Your task to perform on an android device: stop showing notifications on the lock screen Image 0: 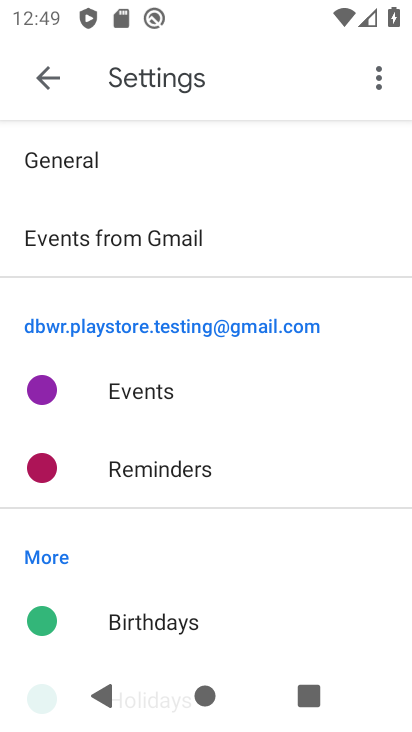
Step 0: press home button
Your task to perform on an android device: stop showing notifications on the lock screen Image 1: 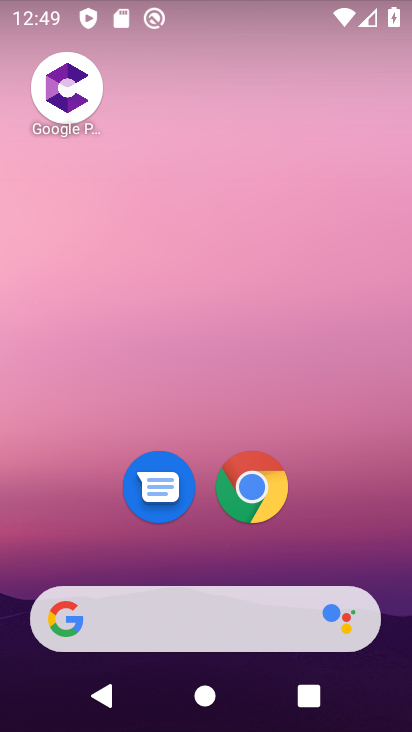
Step 1: drag from (336, 528) to (351, 150)
Your task to perform on an android device: stop showing notifications on the lock screen Image 2: 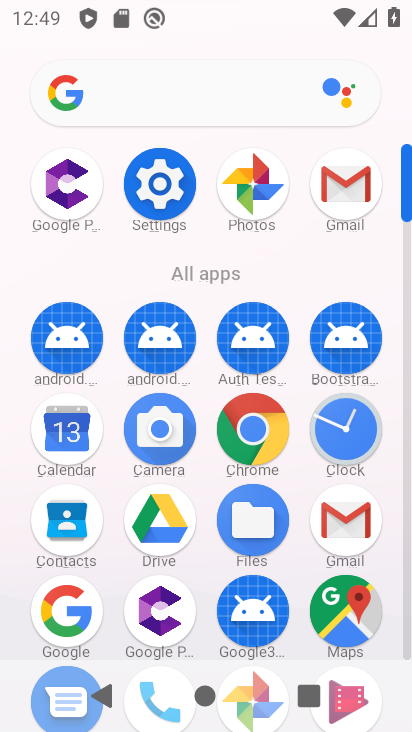
Step 2: click (180, 204)
Your task to perform on an android device: stop showing notifications on the lock screen Image 3: 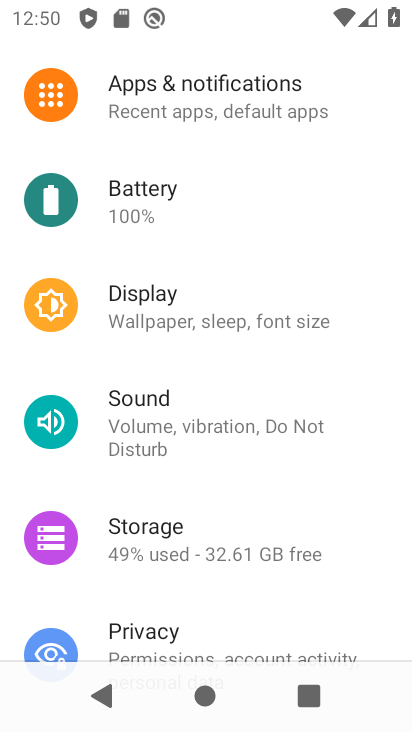
Step 3: click (238, 106)
Your task to perform on an android device: stop showing notifications on the lock screen Image 4: 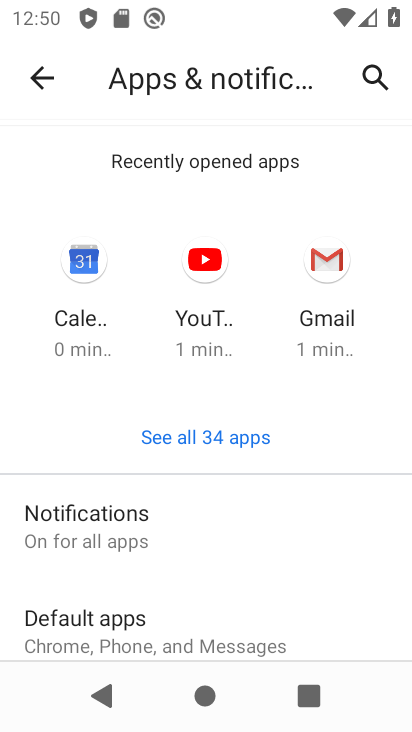
Step 4: click (190, 529)
Your task to perform on an android device: stop showing notifications on the lock screen Image 5: 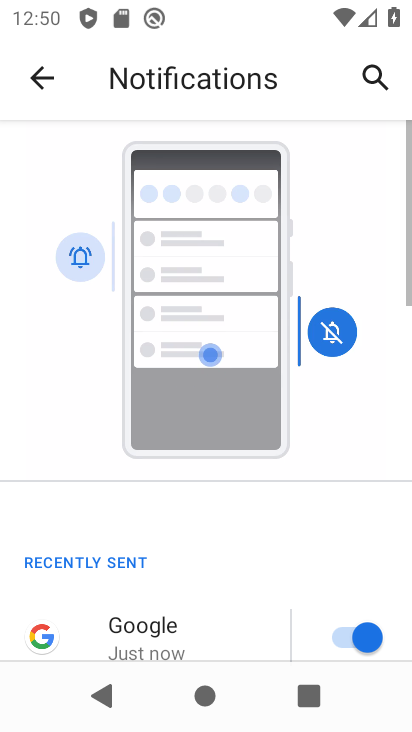
Step 5: drag from (219, 598) to (236, 173)
Your task to perform on an android device: stop showing notifications on the lock screen Image 6: 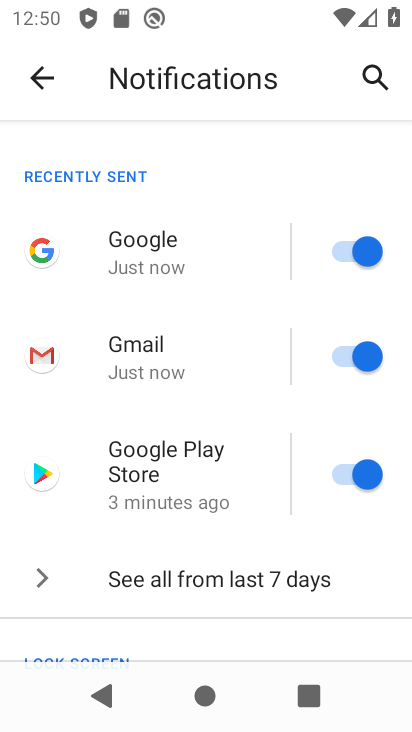
Step 6: drag from (285, 471) to (284, 196)
Your task to perform on an android device: stop showing notifications on the lock screen Image 7: 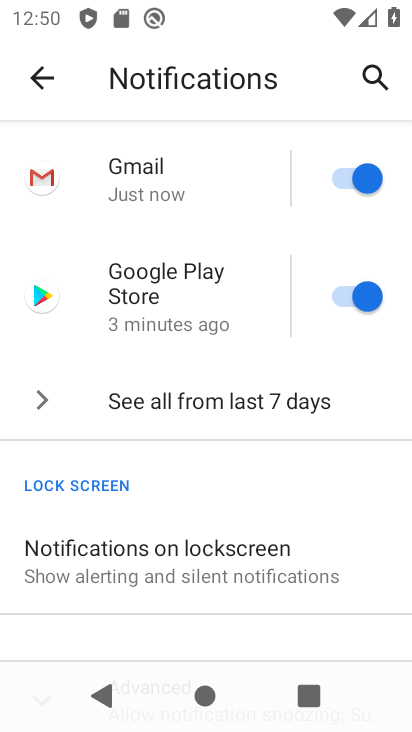
Step 7: click (207, 580)
Your task to perform on an android device: stop showing notifications on the lock screen Image 8: 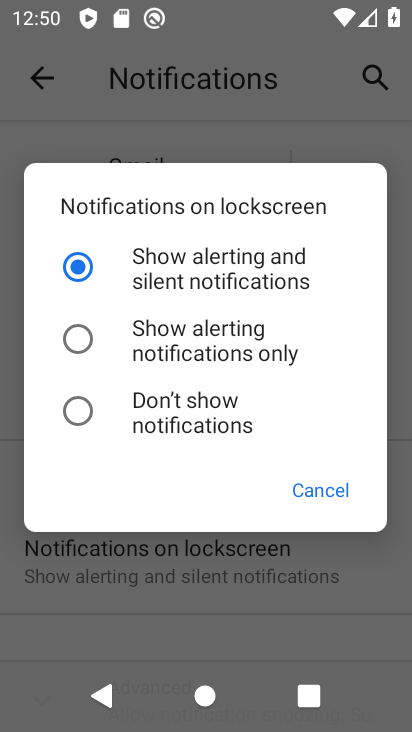
Step 8: click (184, 423)
Your task to perform on an android device: stop showing notifications on the lock screen Image 9: 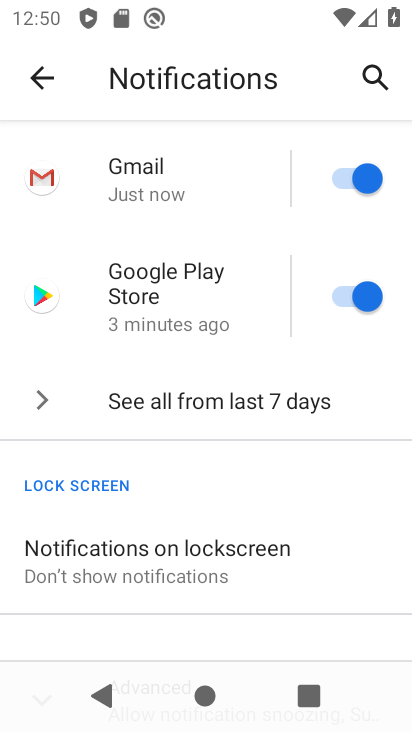
Step 9: task complete